Your task to perform on an android device: see sites visited before in the chrome app Image 0: 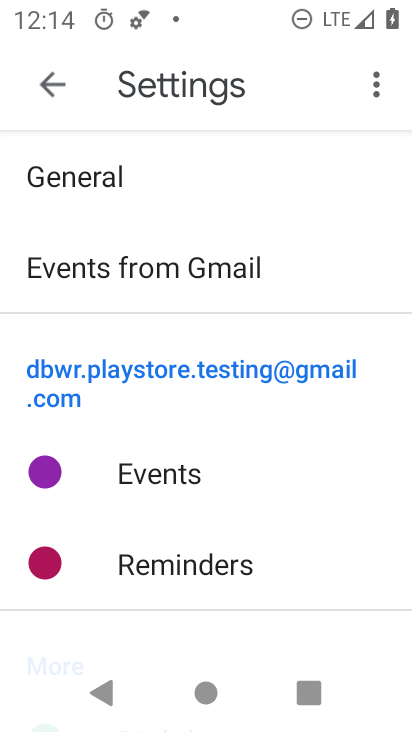
Step 0: press home button
Your task to perform on an android device: see sites visited before in the chrome app Image 1: 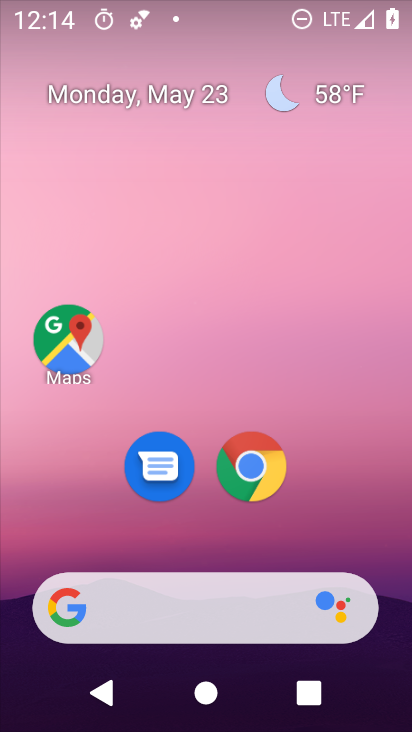
Step 1: click (247, 461)
Your task to perform on an android device: see sites visited before in the chrome app Image 2: 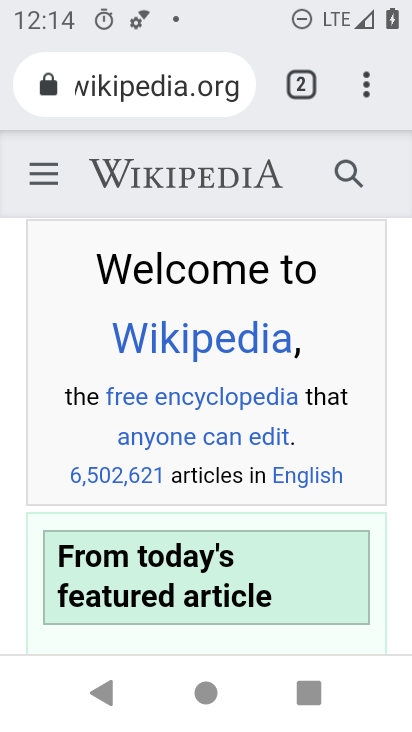
Step 2: click (359, 82)
Your task to perform on an android device: see sites visited before in the chrome app Image 3: 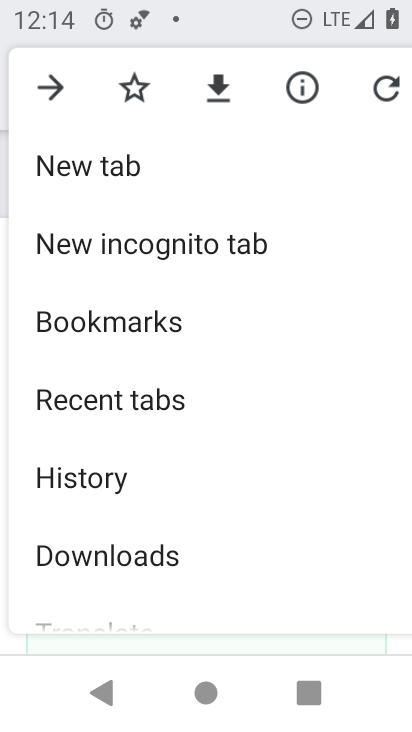
Step 3: click (83, 480)
Your task to perform on an android device: see sites visited before in the chrome app Image 4: 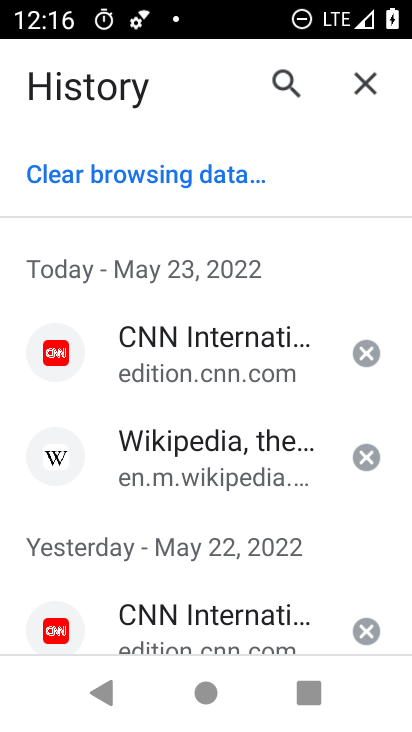
Step 4: task complete